Your task to perform on an android device: turn vacation reply on in the gmail app Image 0: 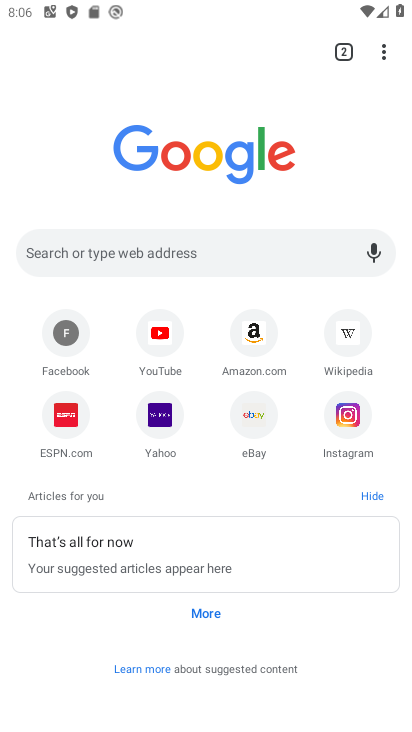
Step 0: press home button
Your task to perform on an android device: turn vacation reply on in the gmail app Image 1: 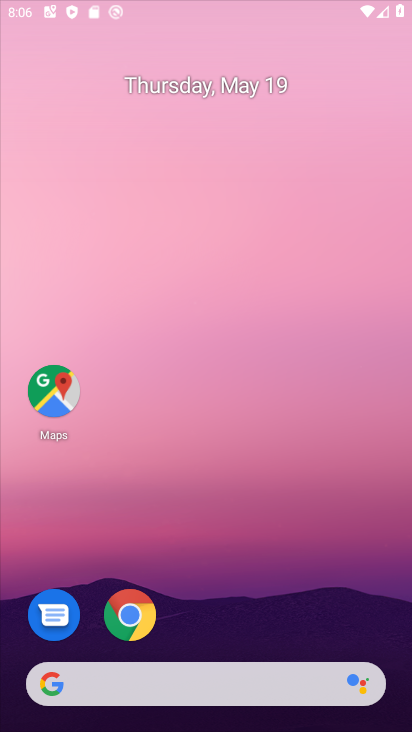
Step 1: drag from (224, 589) to (233, 94)
Your task to perform on an android device: turn vacation reply on in the gmail app Image 2: 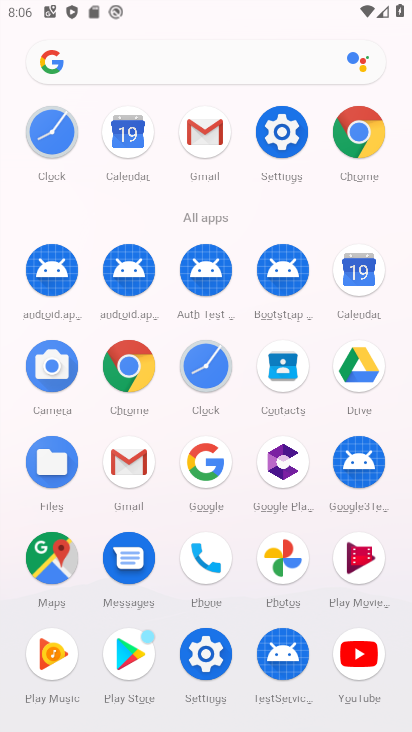
Step 2: click (211, 132)
Your task to perform on an android device: turn vacation reply on in the gmail app Image 3: 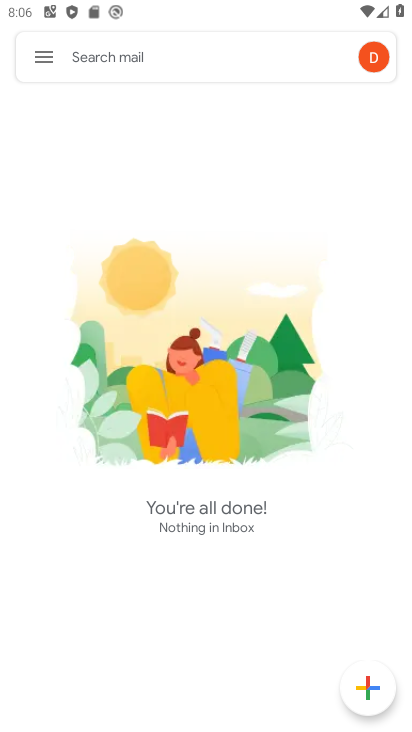
Step 3: click (45, 55)
Your task to perform on an android device: turn vacation reply on in the gmail app Image 4: 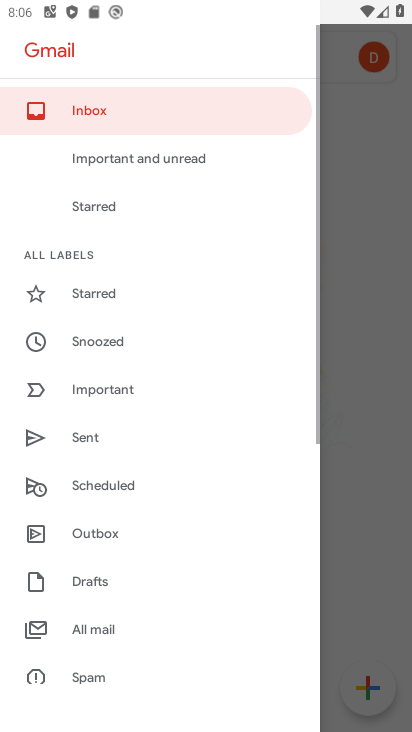
Step 4: drag from (131, 585) to (116, 118)
Your task to perform on an android device: turn vacation reply on in the gmail app Image 5: 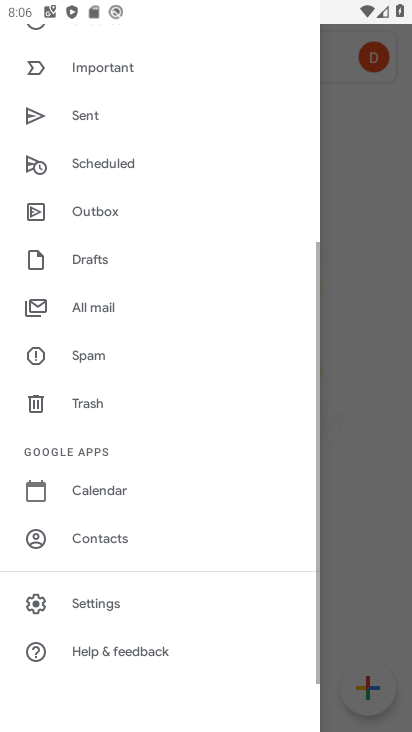
Step 5: click (101, 609)
Your task to perform on an android device: turn vacation reply on in the gmail app Image 6: 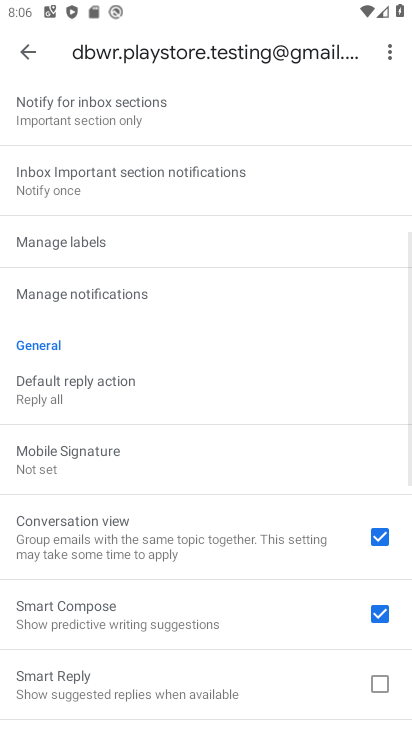
Step 6: drag from (195, 617) to (188, 322)
Your task to perform on an android device: turn vacation reply on in the gmail app Image 7: 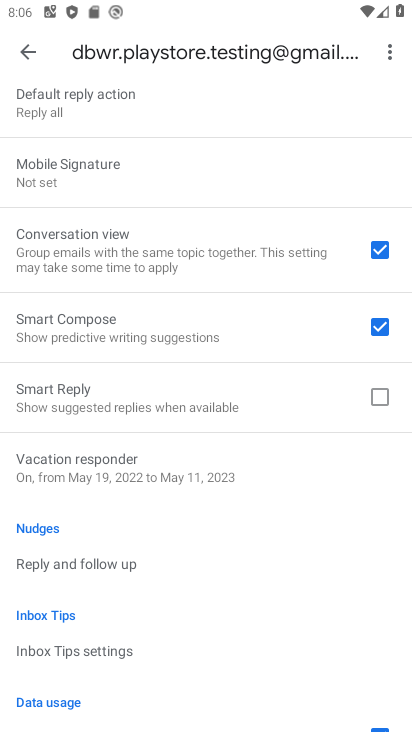
Step 7: click (179, 458)
Your task to perform on an android device: turn vacation reply on in the gmail app Image 8: 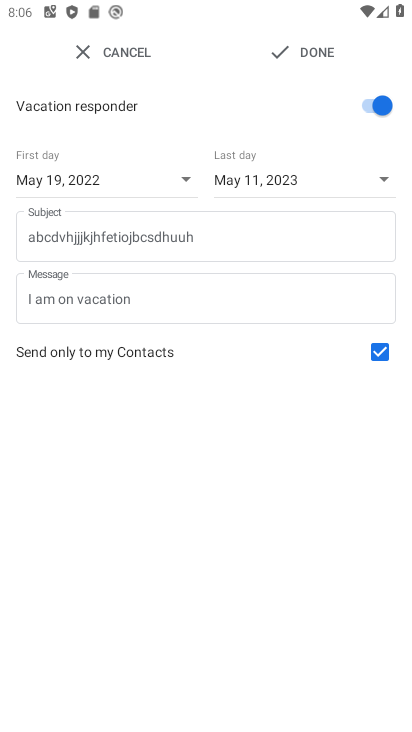
Step 8: task complete